Your task to perform on an android device: Open the phone app and click the voicemail tab. Image 0: 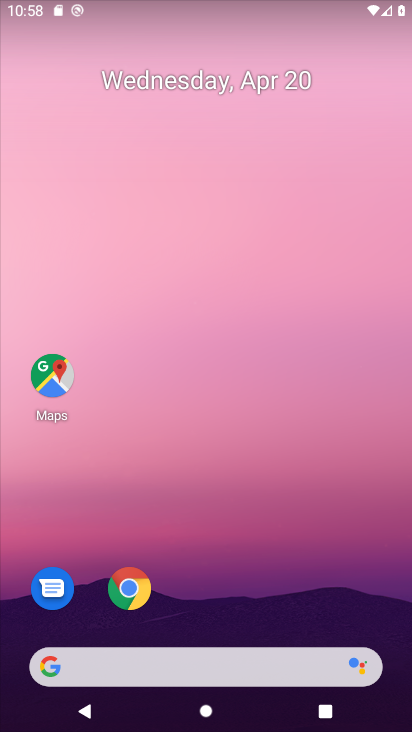
Step 0: drag from (401, 654) to (319, 373)
Your task to perform on an android device: Open the phone app and click the voicemail tab. Image 1: 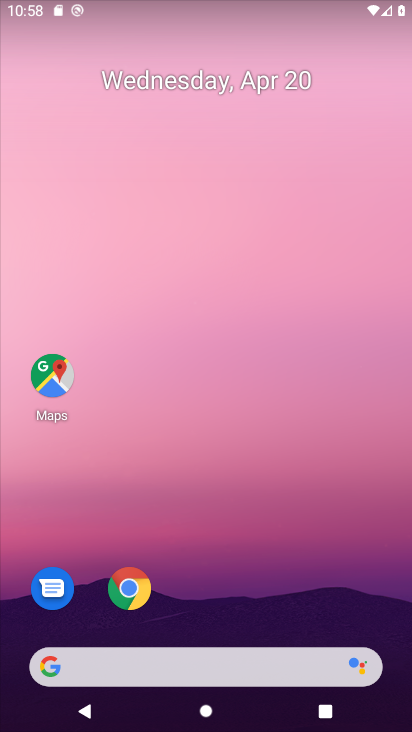
Step 1: drag from (394, 659) to (264, 198)
Your task to perform on an android device: Open the phone app and click the voicemail tab. Image 2: 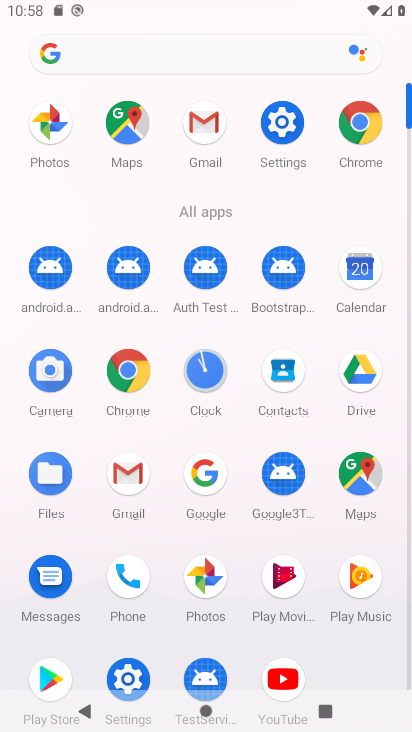
Step 2: click (408, 667)
Your task to perform on an android device: Open the phone app and click the voicemail tab. Image 3: 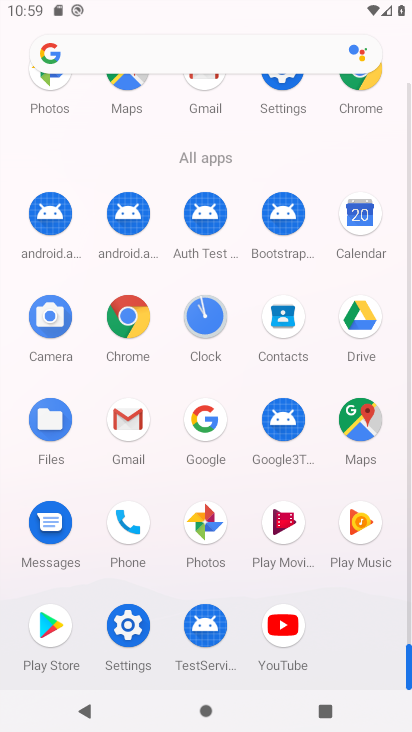
Step 3: click (125, 515)
Your task to perform on an android device: Open the phone app and click the voicemail tab. Image 4: 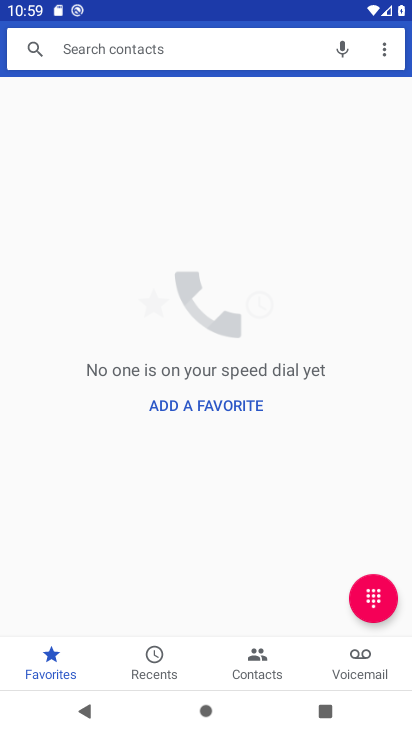
Step 4: click (362, 658)
Your task to perform on an android device: Open the phone app and click the voicemail tab. Image 5: 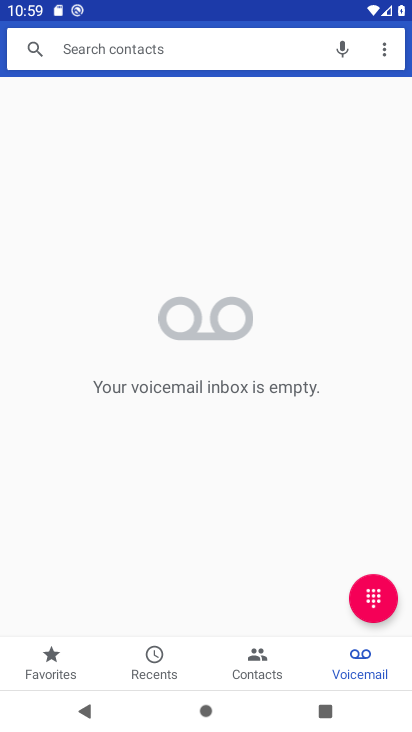
Step 5: task complete